Your task to perform on an android device: refresh tabs in the chrome app Image 0: 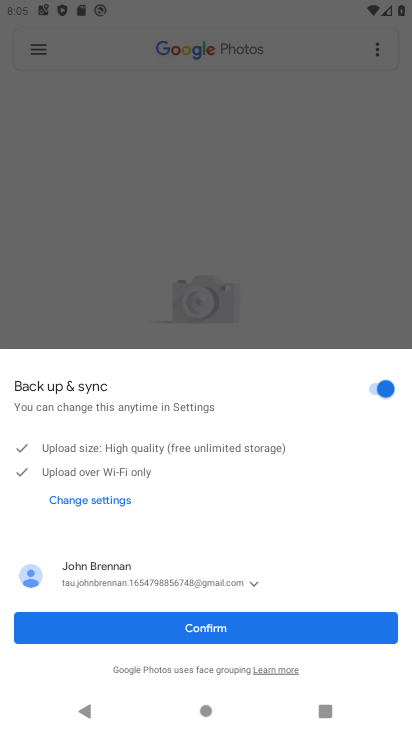
Step 0: press home button
Your task to perform on an android device: refresh tabs in the chrome app Image 1: 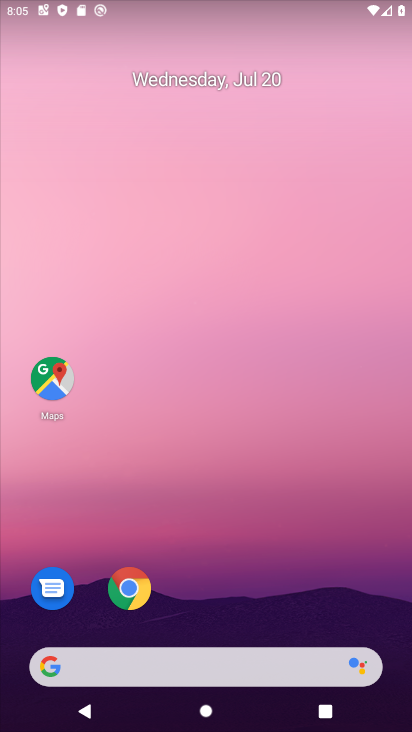
Step 1: click (130, 585)
Your task to perform on an android device: refresh tabs in the chrome app Image 2: 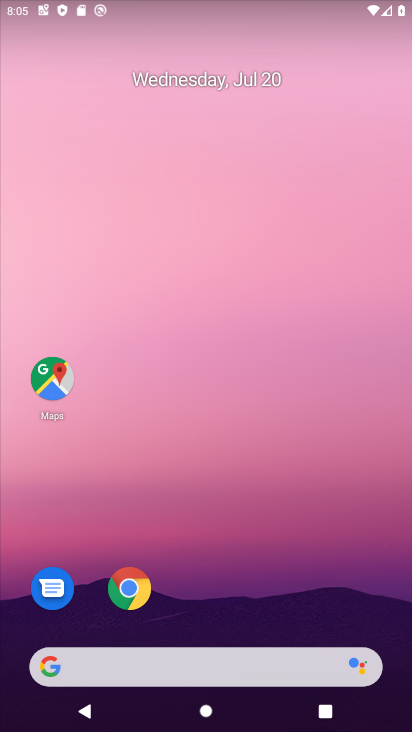
Step 2: click (130, 585)
Your task to perform on an android device: refresh tabs in the chrome app Image 3: 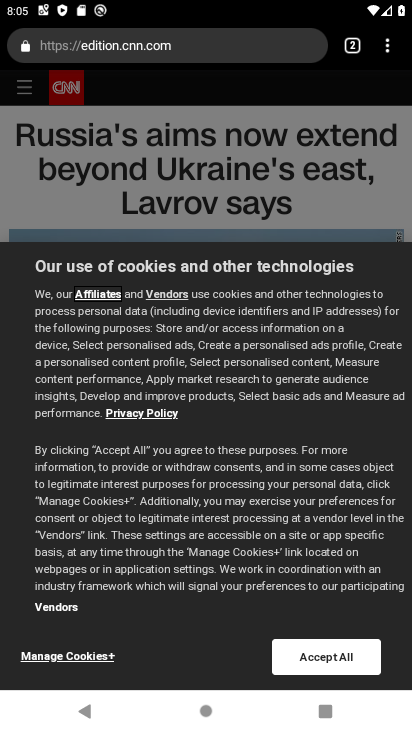
Step 3: click (384, 43)
Your task to perform on an android device: refresh tabs in the chrome app Image 4: 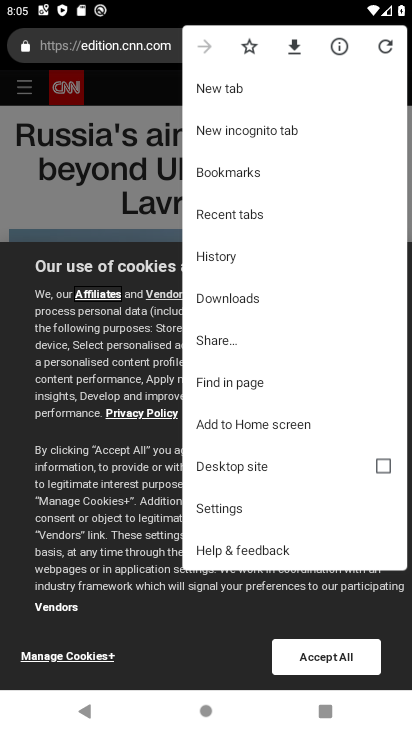
Step 4: click (380, 46)
Your task to perform on an android device: refresh tabs in the chrome app Image 5: 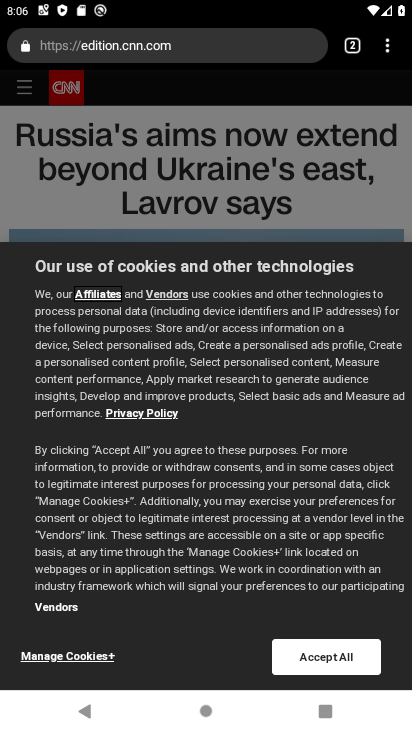
Step 5: task complete